Your task to perform on an android device: toggle location history Image 0: 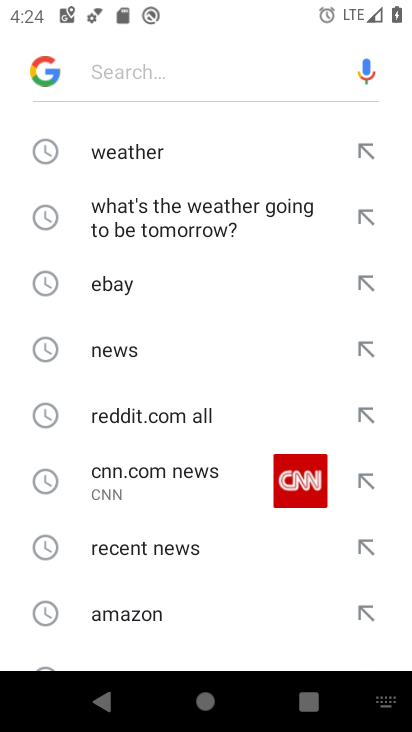
Step 0: press home button
Your task to perform on an android device: toggle location history Image 1: 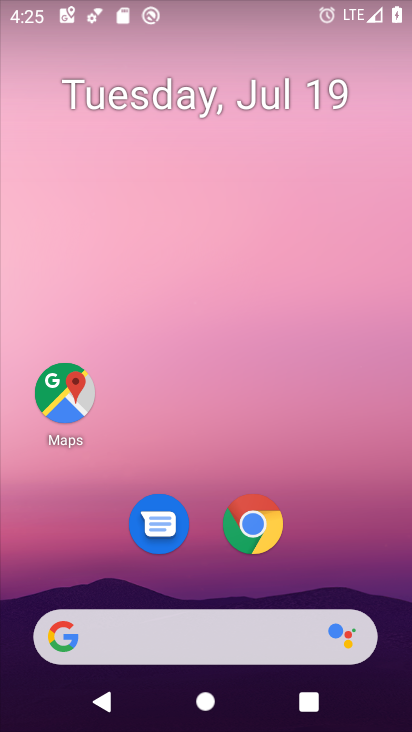
Step 1: drag from (317, 555) to (316, 39)
Your task to perform on an android device: toggle location history Image 2: 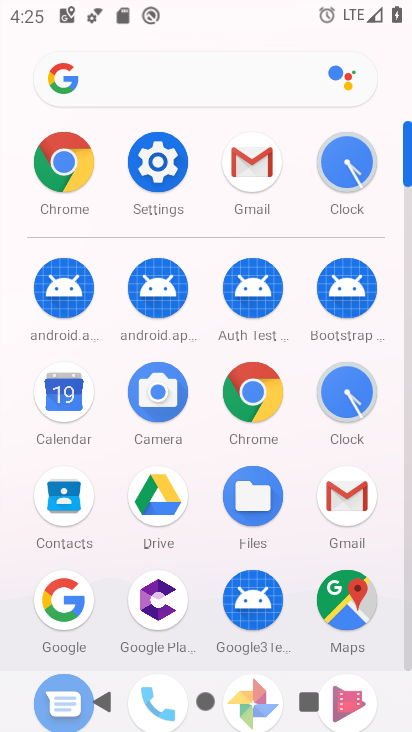
Step 2: click (170, 169)
Your task to perform on an android device: toggle location history Image 3: 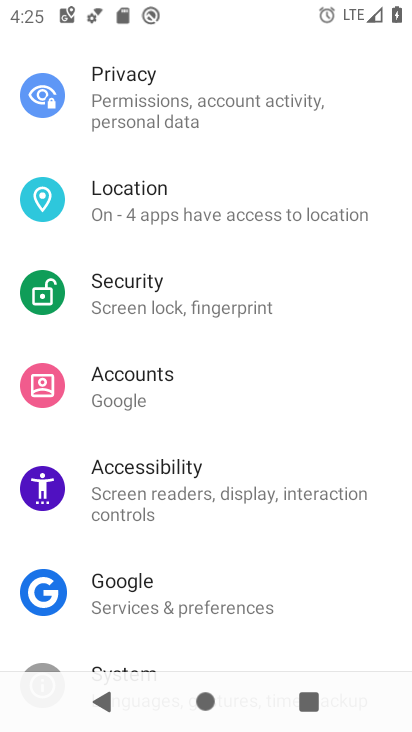
Step 3: click (208, 215)
Your task to perform on an android device: toggle location history Image 4: 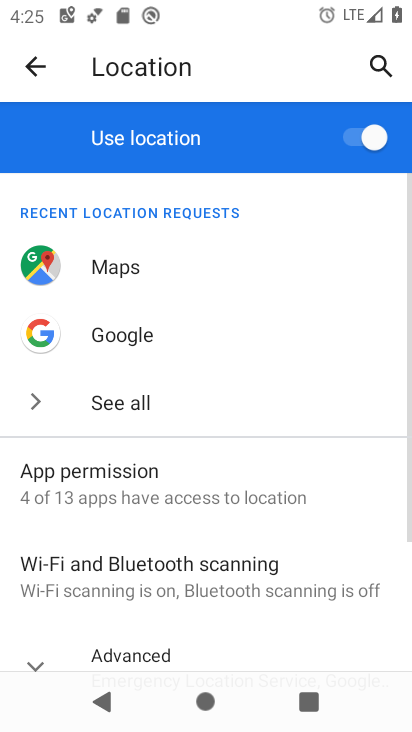
Step 4: drag from (304, 471) to (297, 218)
Your task to perform on an android device: toggle location history Image 5: 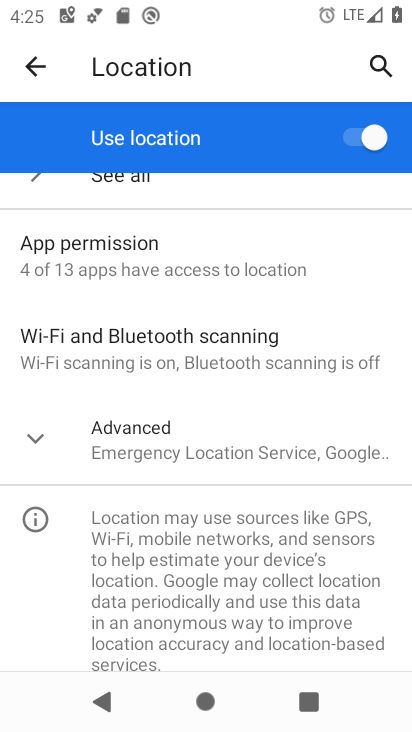
Step 5: click (38, 434)
Your task to perform on an android device: toggle location history Image 6: 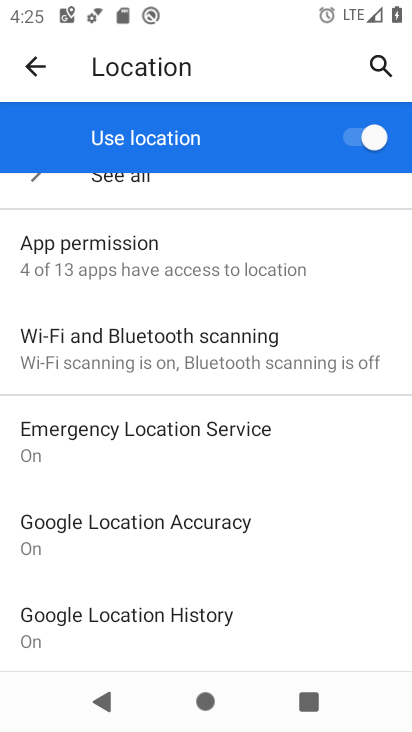
Step 6: drag from (213, 573) to (214, 328)
Your task to perform on an android device: toggle location history Image 7: 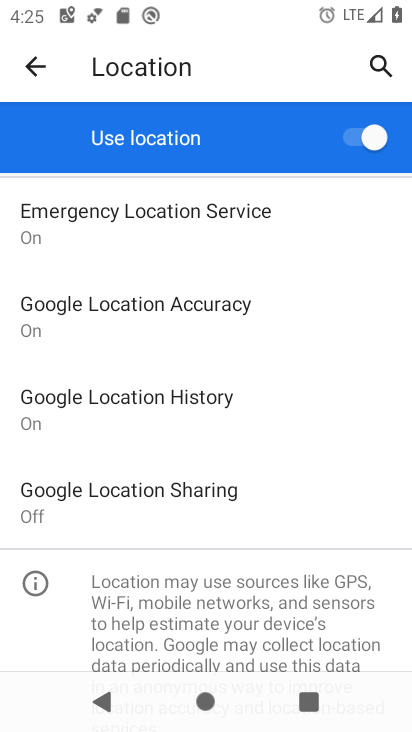
Step 7: click (176, 414)
Your task to perform on an android device: toggle location history Image 8: 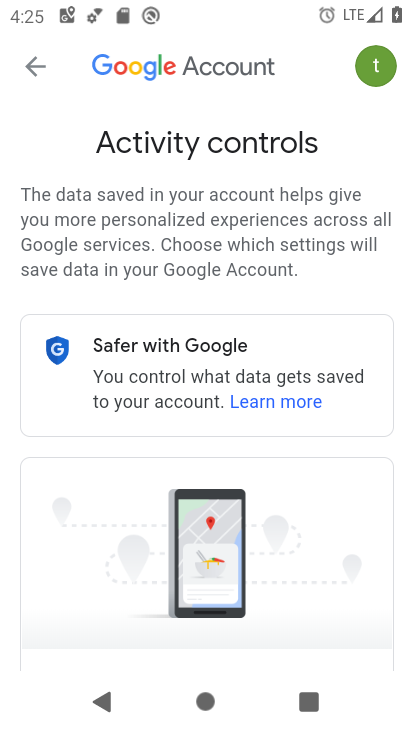
Step 8: drag from (127, 532) to (159, 160)
Your task to perform on an android device: toggle location history Image 9: 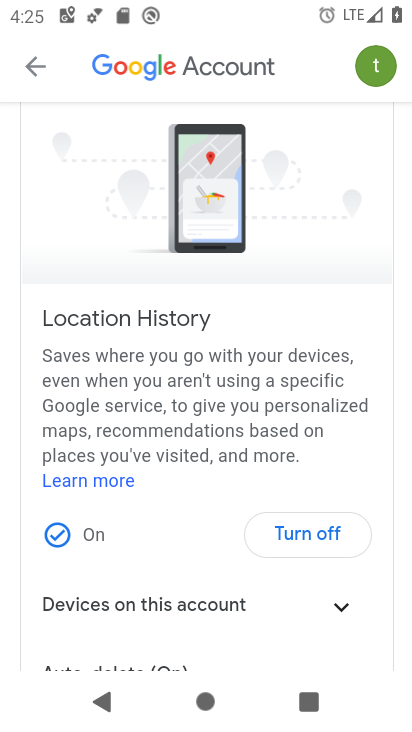
Step 9: click (287, 534)
Your task to perform on an android device: toggle location history Image 10: 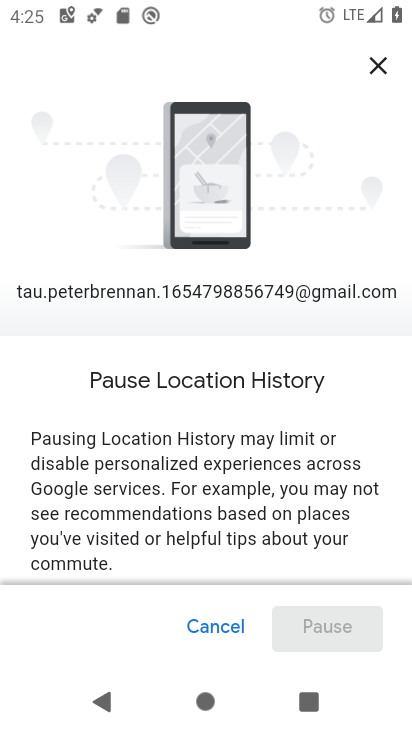
Step 10: drag from (287, 517) to (318, 123)
Your task to perform on an android device: toggle location history Image 11: 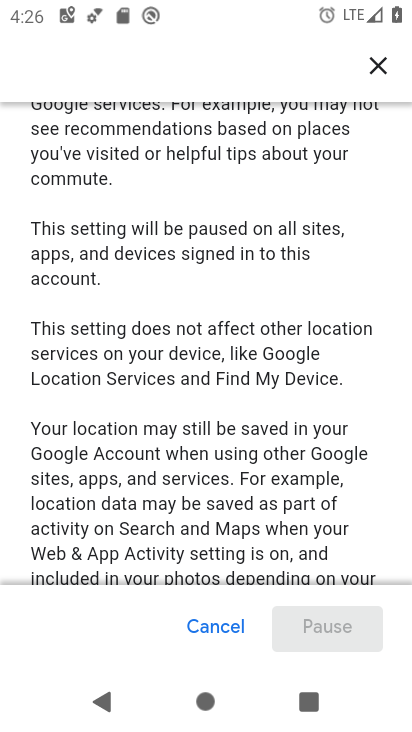
Step 11: drag from (239, 509) to (242, 154)
Your task to perform on an android device: toggle location history Image 12: 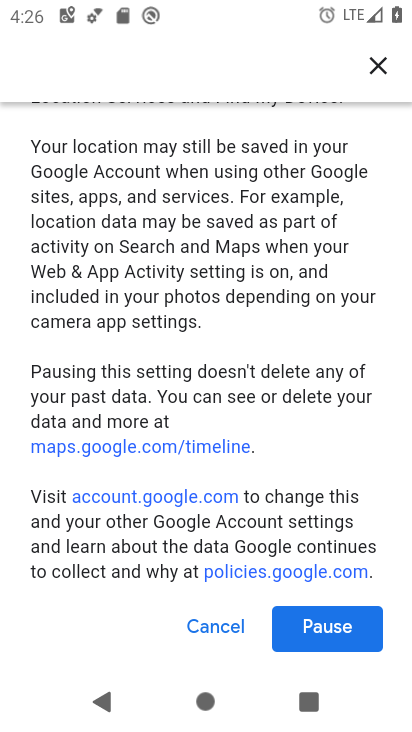
Step 12: click (337, 625)
Your task to perform on an android device: toggle location history Image 13: 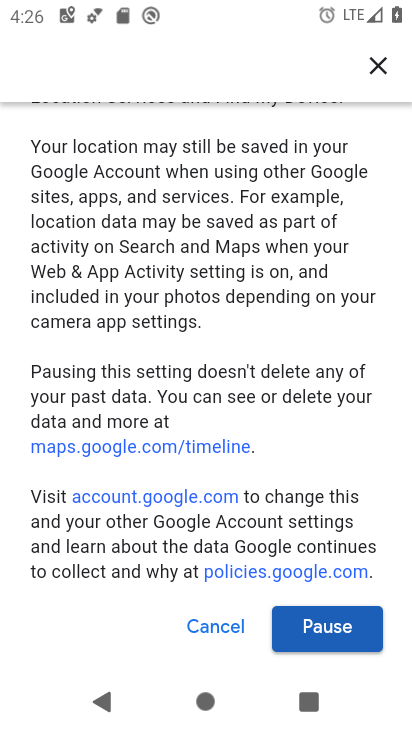
Step 13: click (337, 623)
Your task to perform on an android device: toggle location history Image 14: 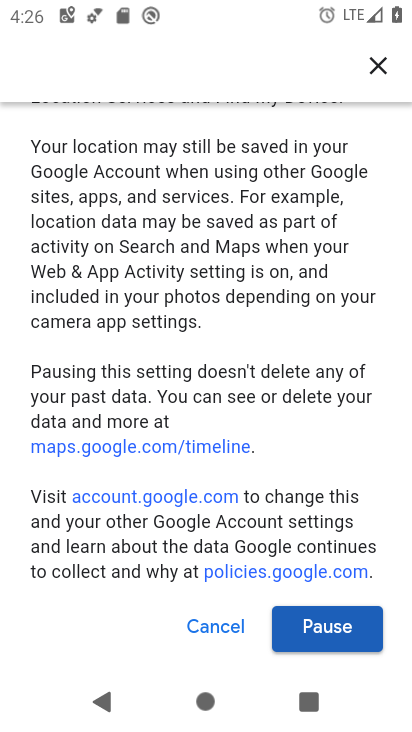
Step 14: click (351, 638)
Your task to perform on an android device: toggle location history Image 15: 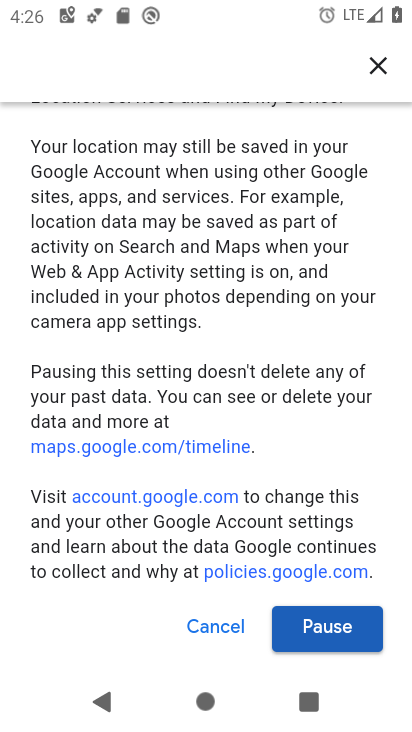
Step 15: click (351, 619)
Your task to perform on an android device: toggle location history Image 16: 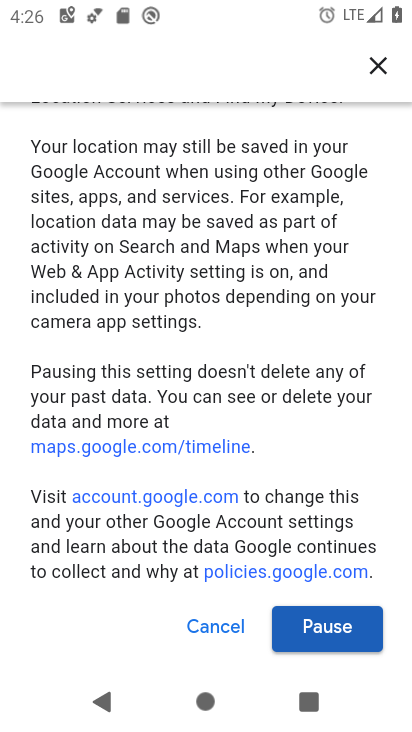
Step 16: click (346, 634)
Your task to perform on an android device: toggle location history Image 17: 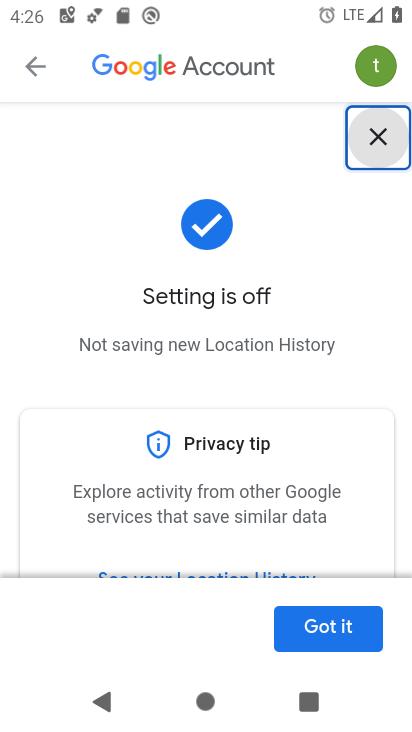
Step 17: click (341, 632)
Your task to perform on an android device: toggle location history Image 18: 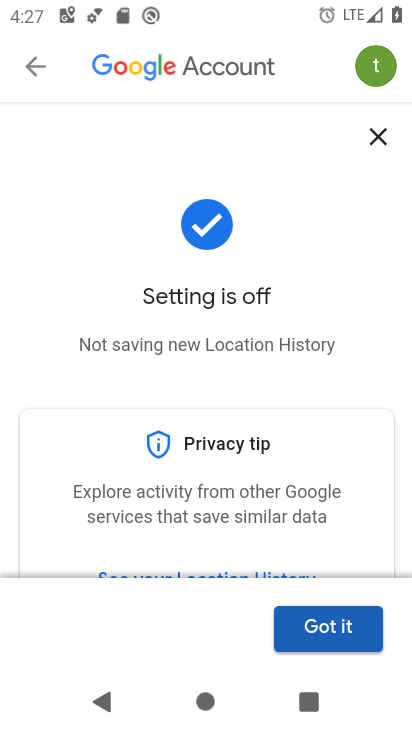
Step 18: click (341, 634)
Your task to perform on an android device: toggle location history Image 19: 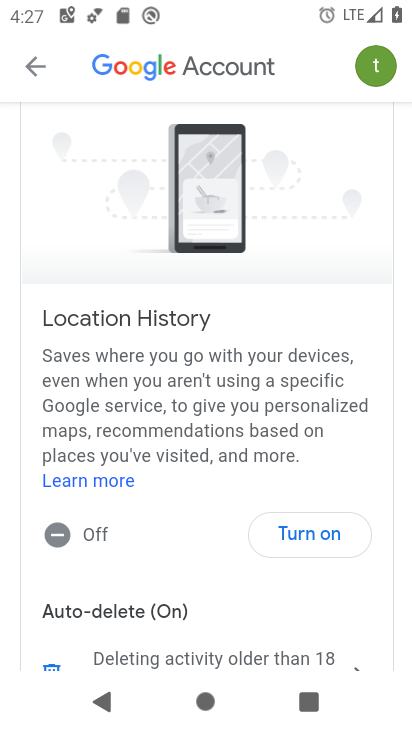
Step 19: task complete